Your task to perform on an android device: Show me the alarms in the clock app Image 0: 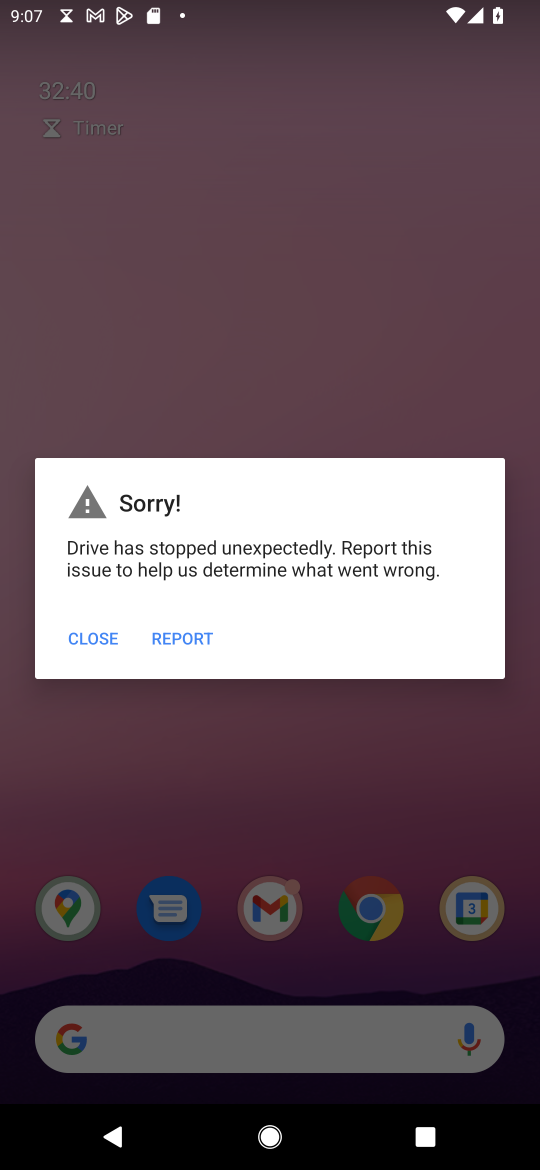
Step 0: click (86, 639)
Your task to perform on an android device: Show me the alarms in the clock app Image 1: 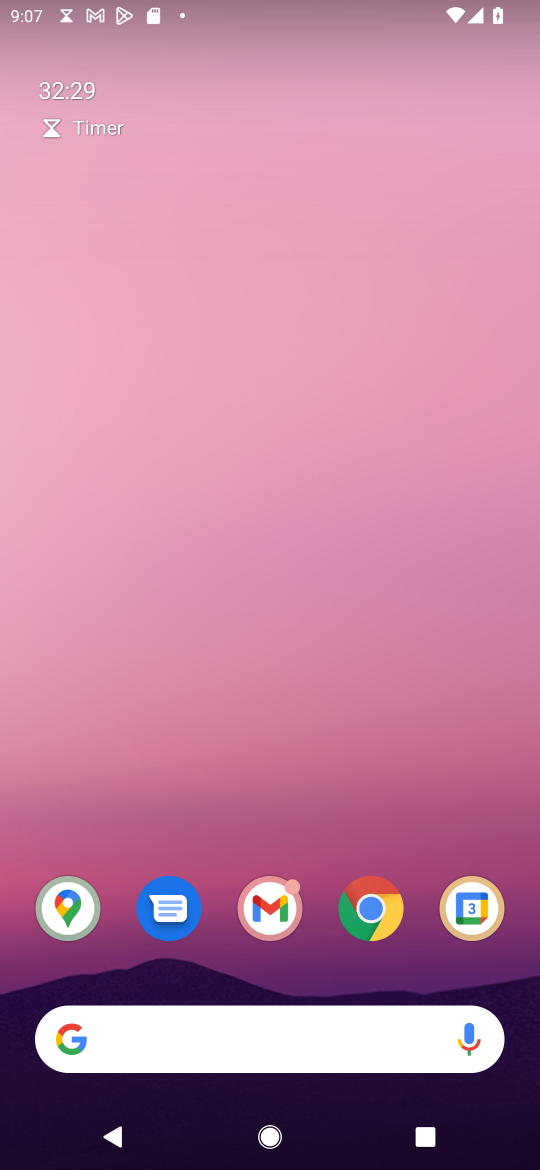
Step 1: drag from (294, 1025) to (395, 143)
Your task to perform on an android device: Show me the alarms in the clock app Image 2: 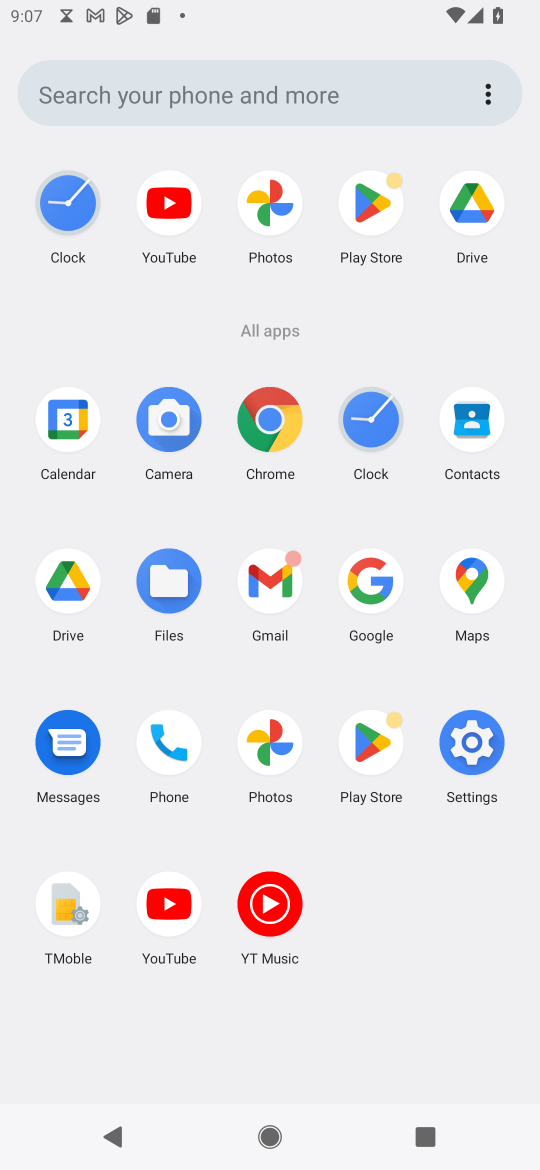
Step 2: click (379, 416)
Your task to perform on an android device: Show me the alarms in the clock app Image 3: 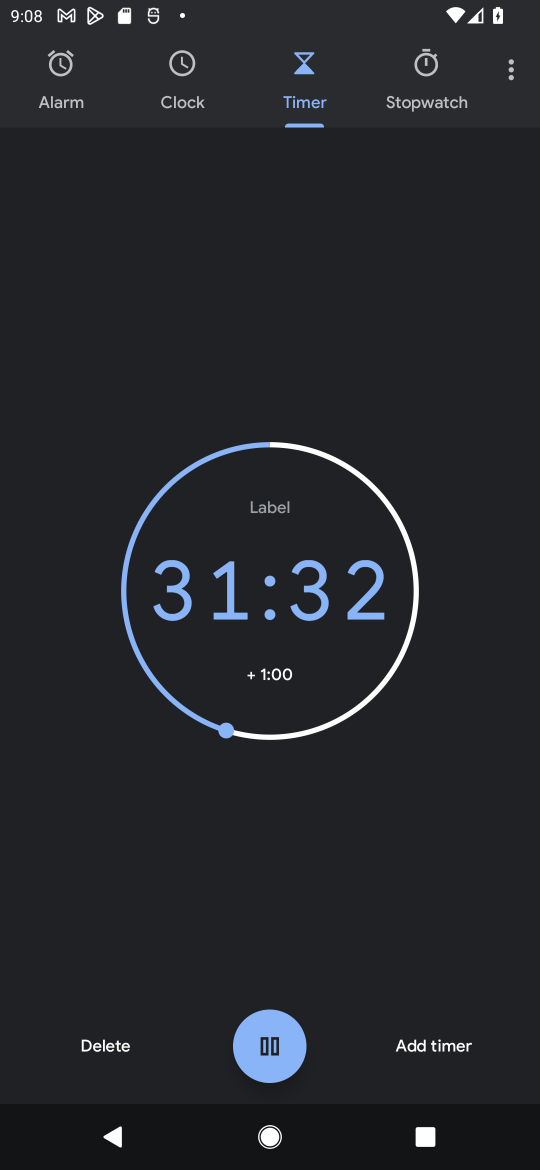
Step 3: click (55, 88)
Your task to perform on an android device: Show me the alarms in the clock app Image 4: 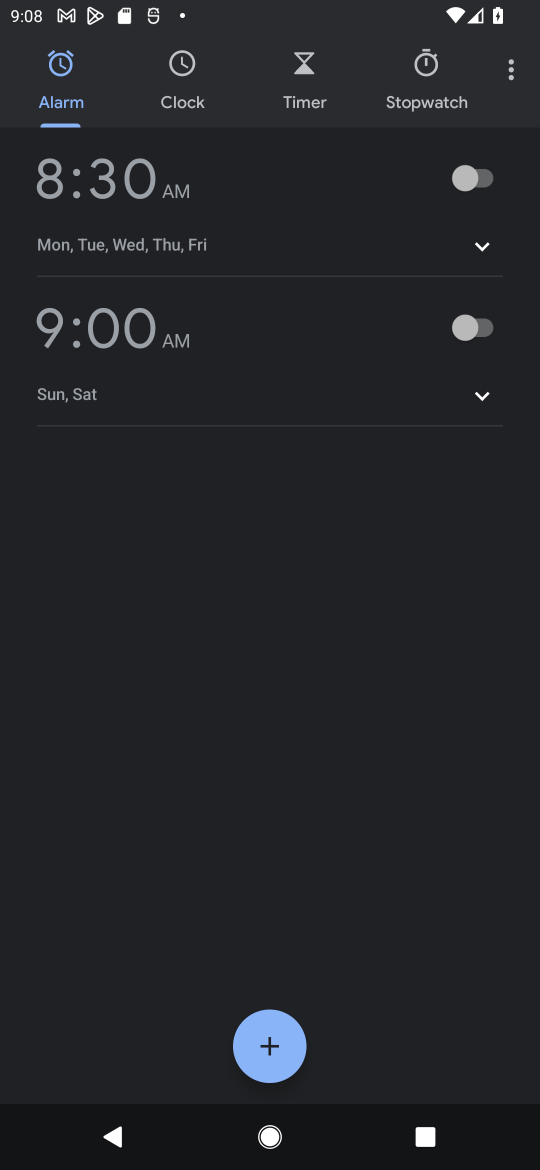
Step 4: task complete